Your task to perform on an android device: Open the web browser Image 0: 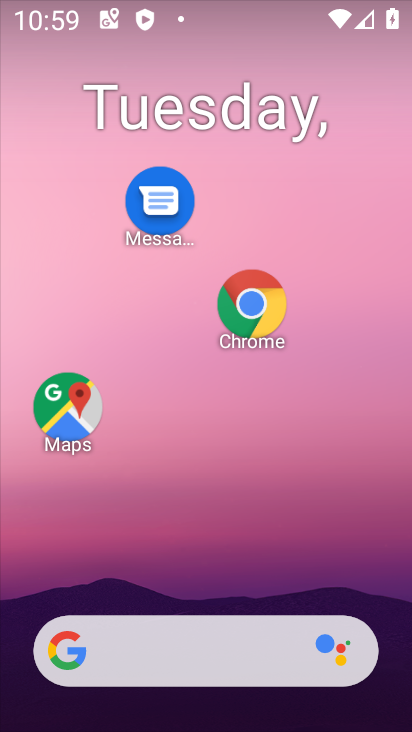
Step 0: drag from (227, 637) to (329, 231)
Your task to perform on an android device: Open the web browser Image 1: 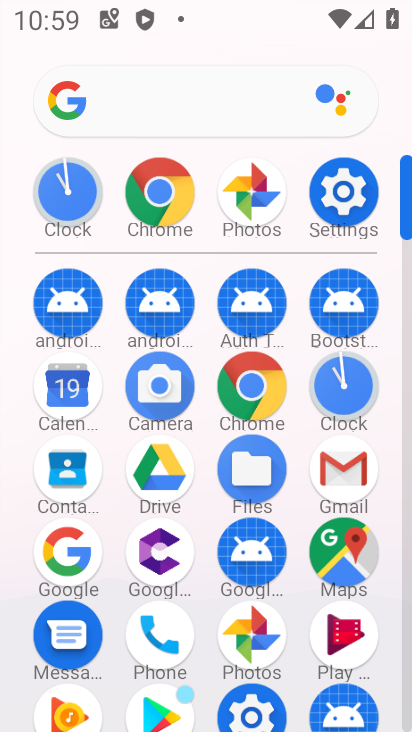
Step 1: click (165, 191)
Your task to perform on an android device: Open the web browser Image 2: 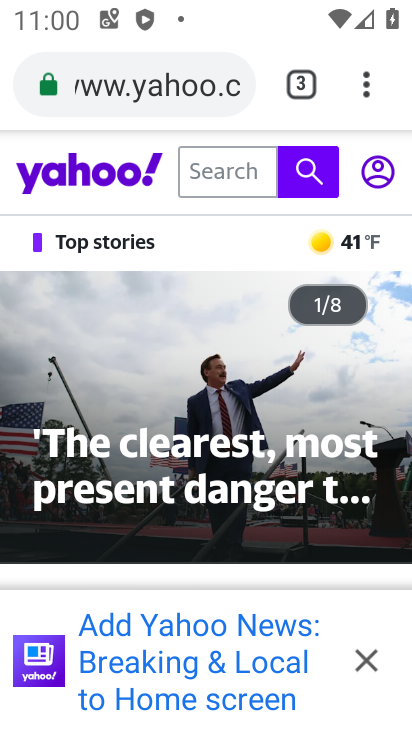
Step 2: task complete